Your task to perform on an android device: Open privacy settings Image 0: 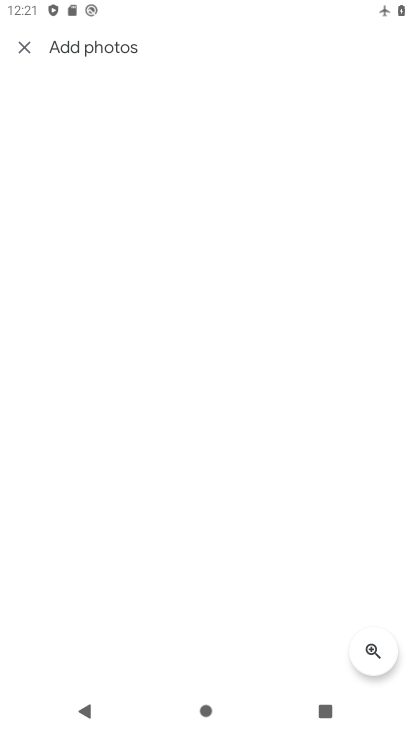
Step 0: press home button
Your task to perform on an android device: Open privacy settings Image 1: 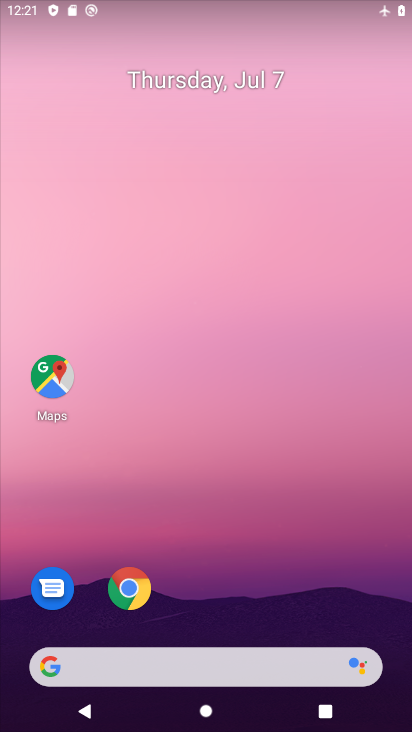
Step 1: click (220, 67)
Your task to perform on an android device: Open privacy settings Image 2: 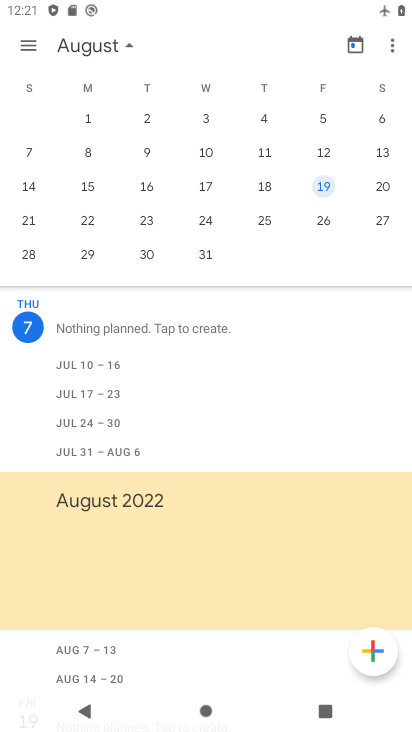
Step 2: press home button
Your task to perform on an android device: Open privacy settings Image 3: 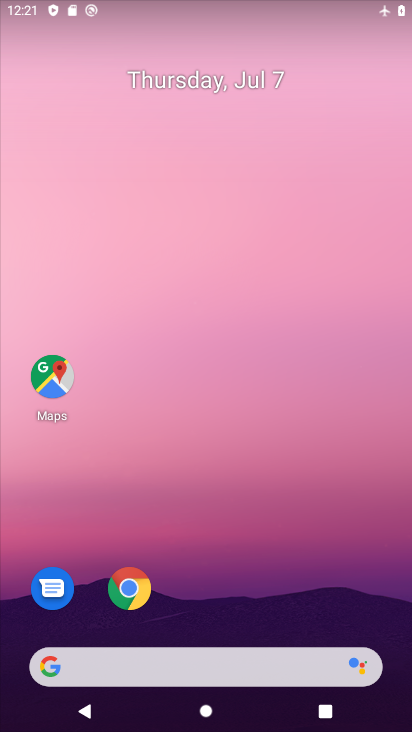
Step 3: drag from (170, 610) to (296, 64)
Your task to perform on an android device: Open privacy settings Image 4: 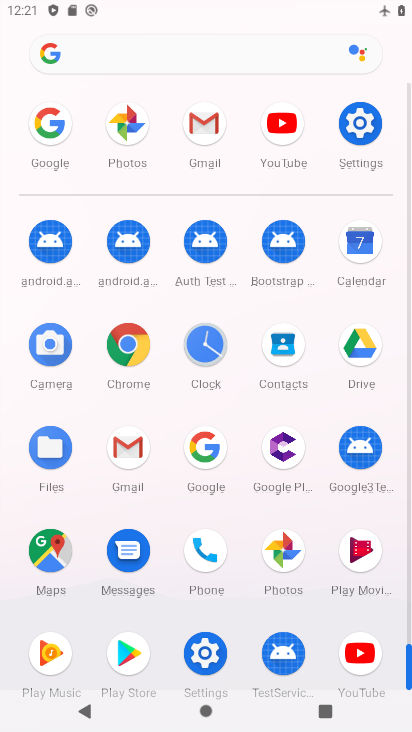
Step 4: click (356, 116)
Your task to perform on an android device: Open privacy settings Image 5: 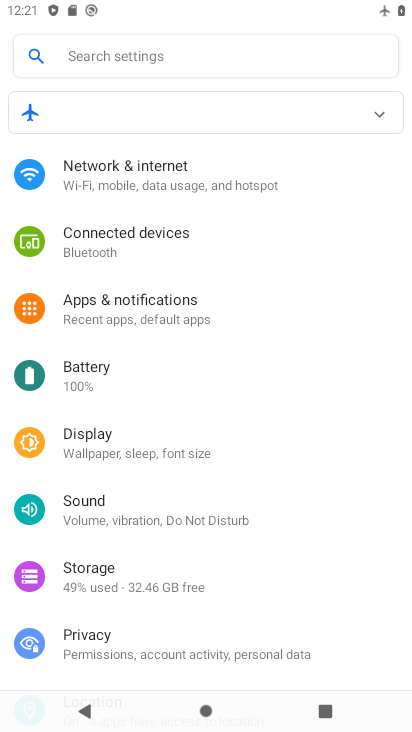
Step 5: drag from (171, 493) to (276, 154)
Your task to perform on an android device: Open privacy settings Image 6: 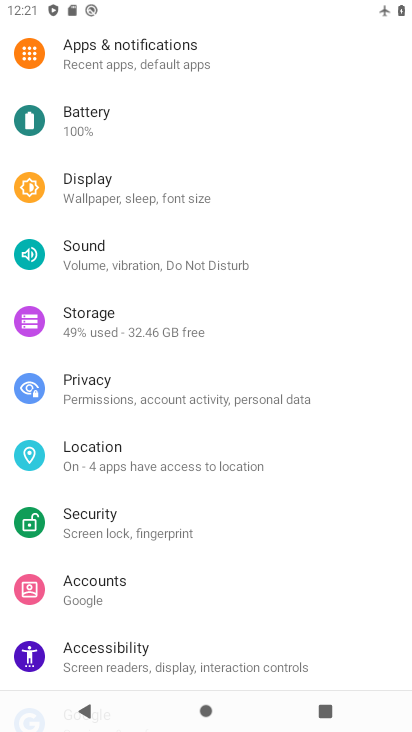
Step 6: click (148, 394)
Your task to perform on an android device: Open privacy settings Image 7: 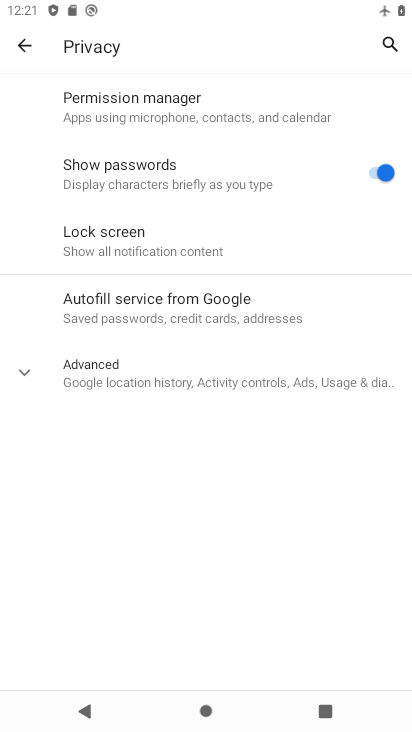
Step 7: task complete